Your task to perform on an android device: empty trash in the gmail app Image 0: 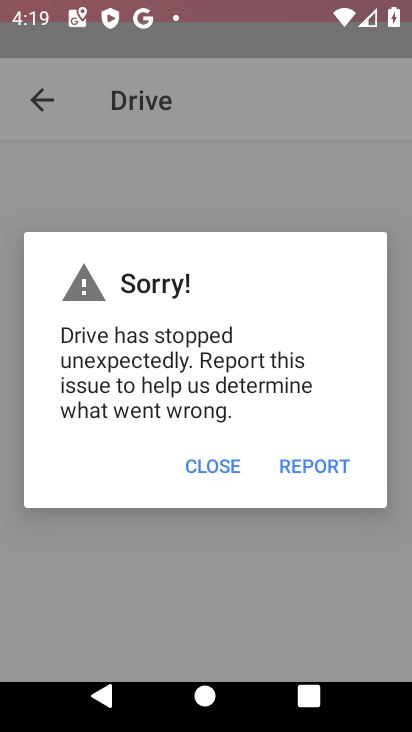
Step 0: click (234, 485)
Your task to perform on an android device: empty trash in the gmail app Image 1: 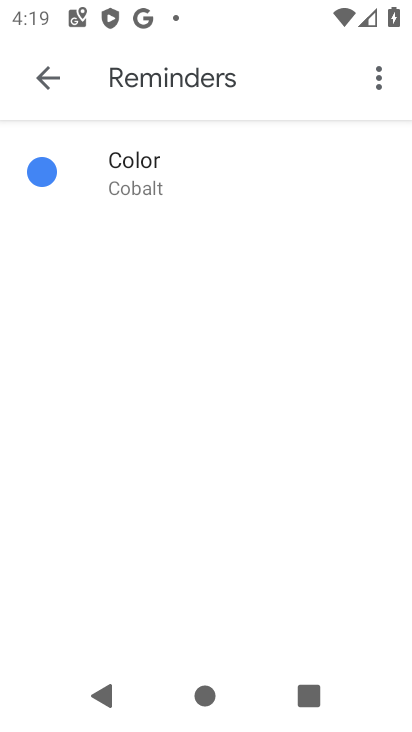
Step 1: press back button
Your task to perform on an android device: empty trash in the gmail app Image 2: 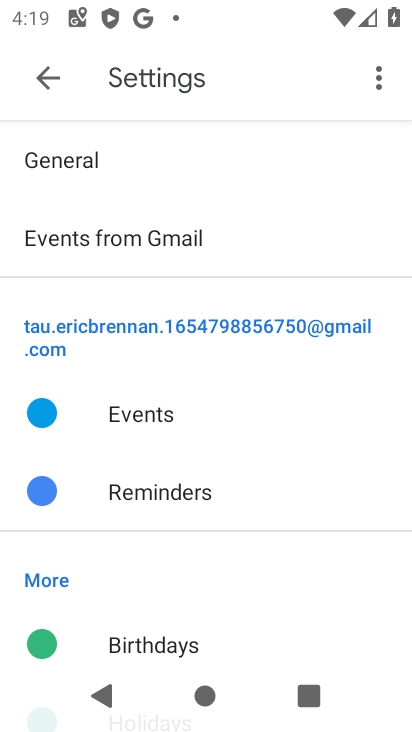
Step 2: press back button
Your task to perform on an android device: empty trash in the gmail app Image 3: 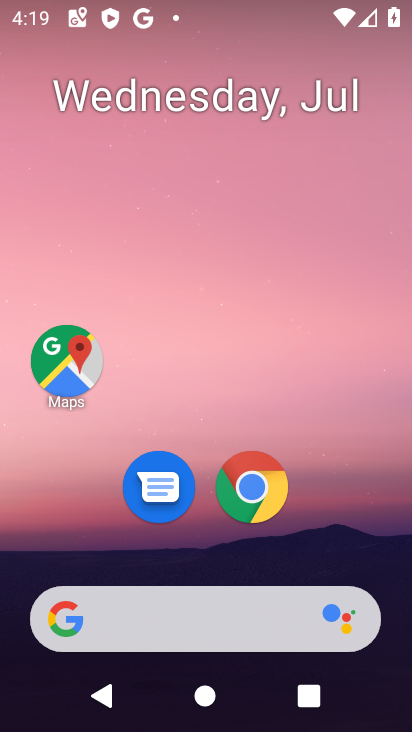
Step 3: drag from (241, 566) to (320, 4)
Your task to perform on an android device: empty trash in the gmail app Image 4: 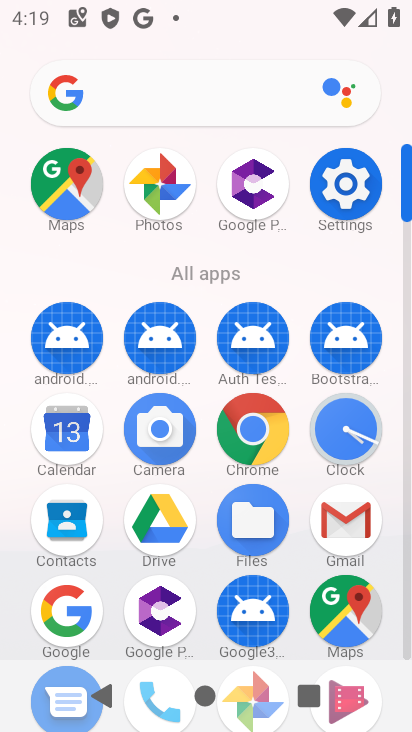
Step 4: click (344, 524)
Your task to perform on an android device: empty trash in the gmail app Image 5: 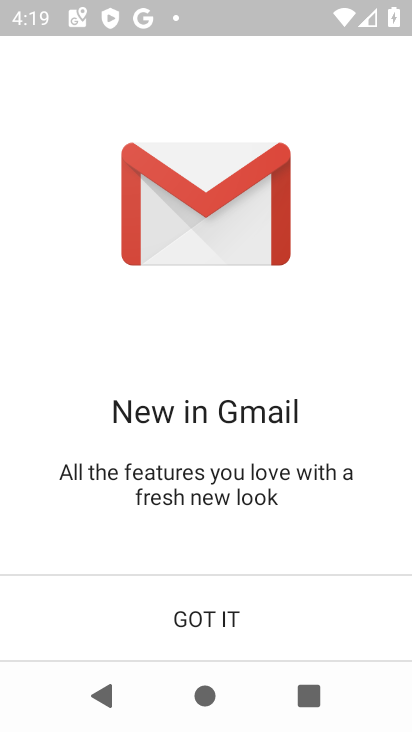
Step 5: click (204, 606)
Your task to perform on an android device: empty trash in the gmail app Image 6: 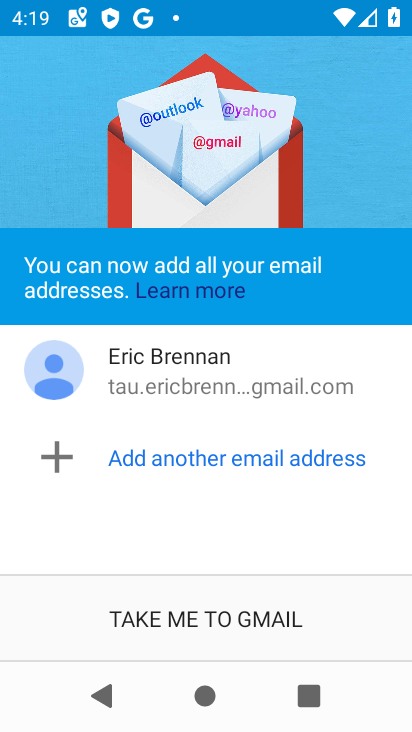
Step 6: click (189, 610)
Your task to perform on an android device: empty trash in the gmail app Image 7: 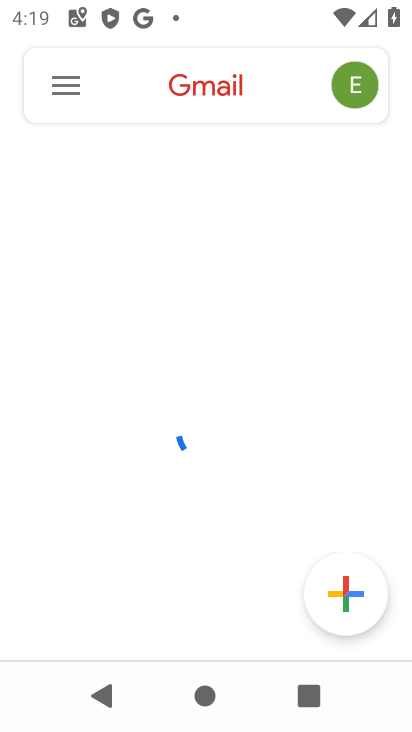
Step 7: click (58, 81)
Your task to perform on an android device: empty trash in the gmail app Image 8: 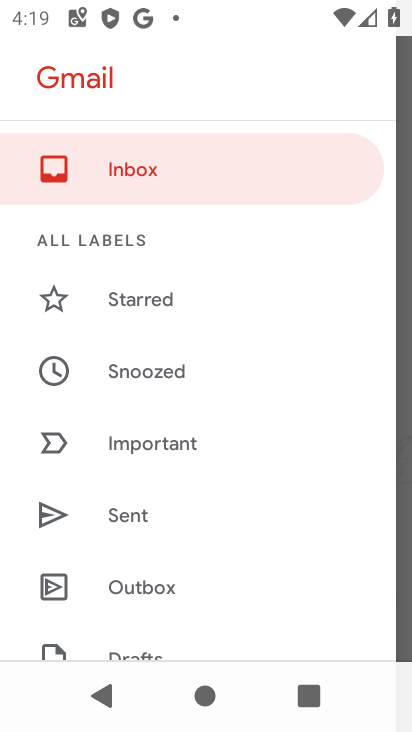
Step 8: drag from (156, 568) to (200, 197)
Your task to perform on an android device: empty trash in the gmail app Image 9: 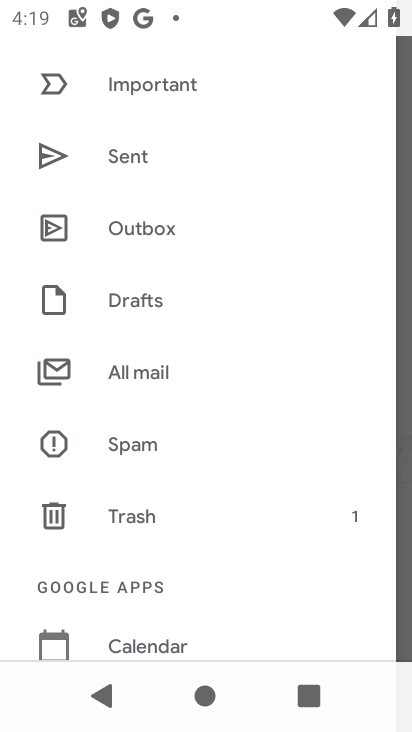
Step 9: click (134, 518)
Your task to perform on an android device: empty trash in the gmail app Image 10: 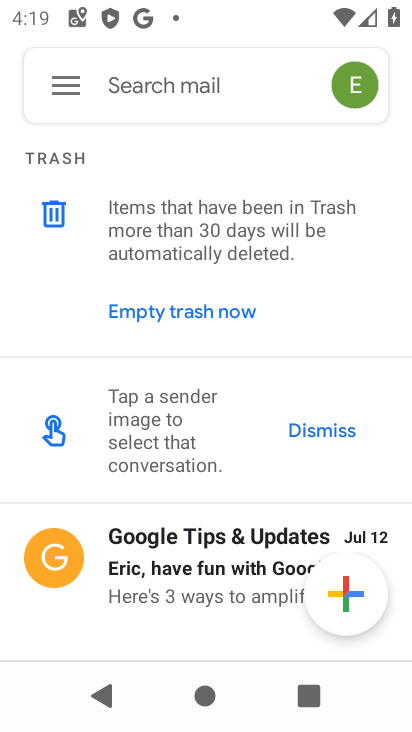
Step 10: click (165, 298)
Your task to perform on an android device: empty trash in the gmail app Image 11: 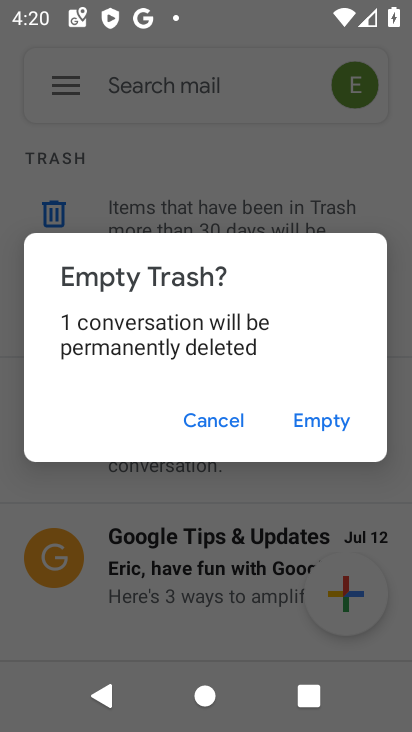
Step 11: click (332, 423)
Your task to perform on an android device: empty trash in the gmail app Image 12: 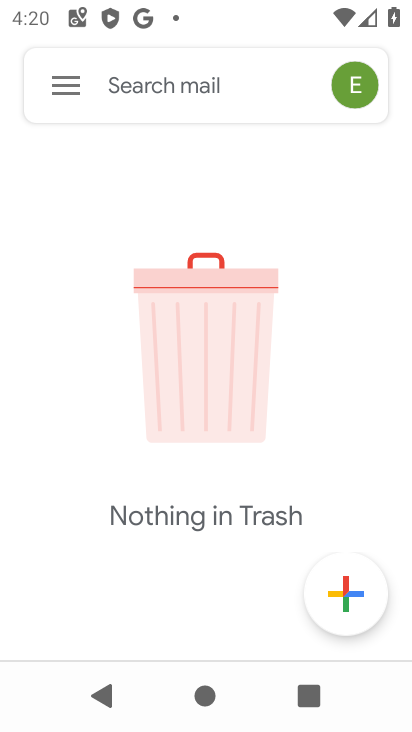
Step 12: task complete